Your task to perform on an android device: Go to Amazon Image 0: 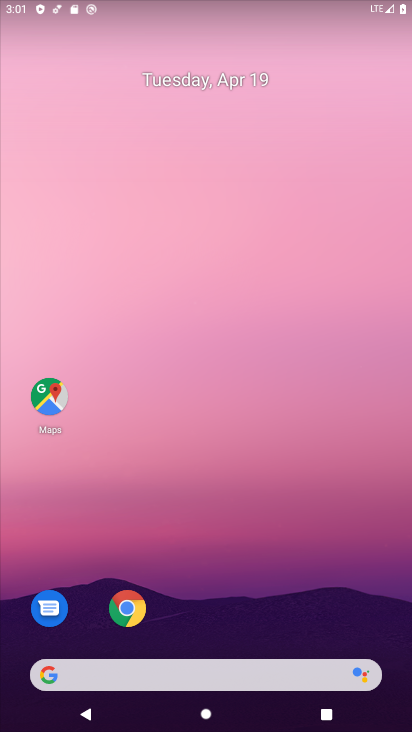
Step 0: drag from (259, 580) to (366, 80)
Your task to perform on an android device: Go to Amazon Image 1: 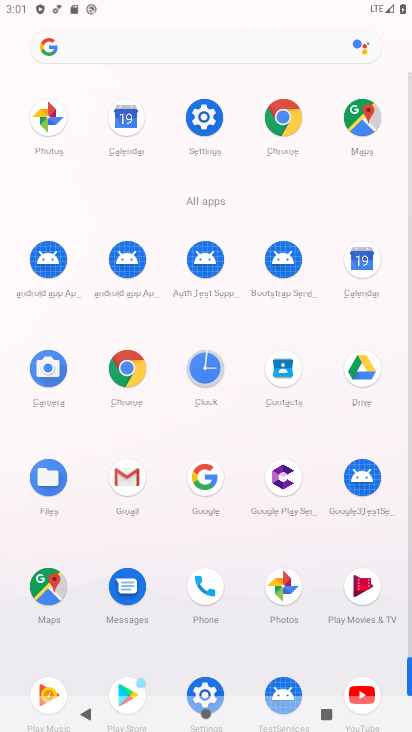
Step 1: drag from (388, 523) to (411, 364)
Your task to perform on an android device: Go to Amazon Image 2: 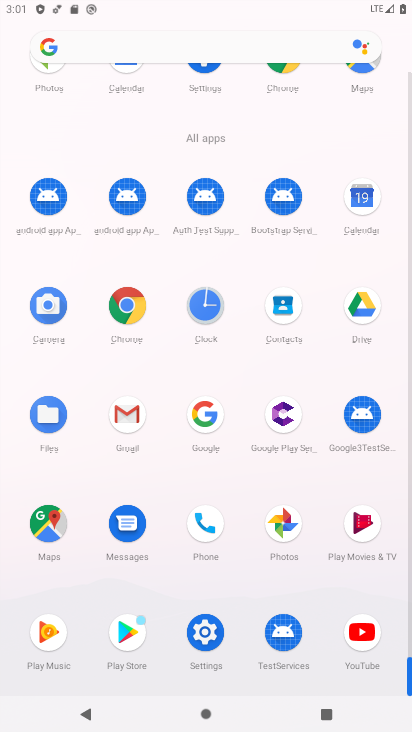
Step 2: drag from (409, 580) to (408, 352)
Your task to perform on an android device: Go to Amazon Image 3: 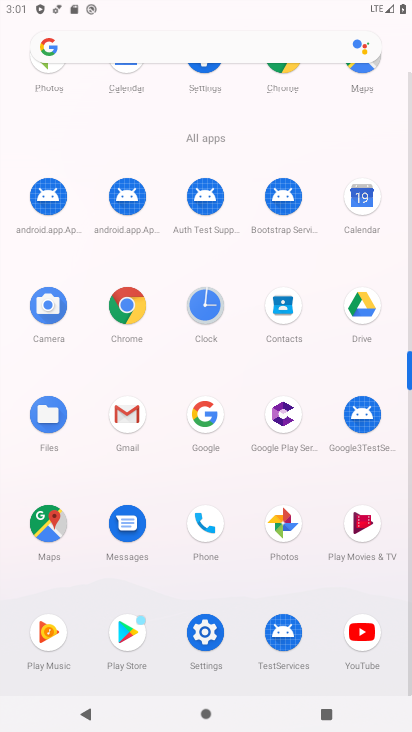
Step 3: drag from (400, 644) to (408, 399)
Your task to perform on an android device: Go to Amazon Image 4: 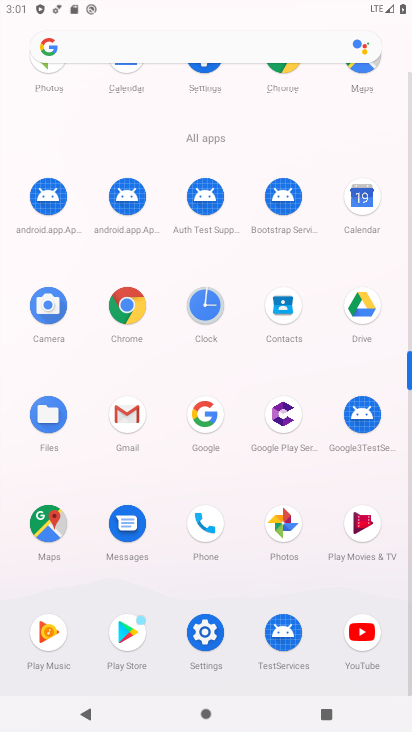
Step 4: click (119, 292)
Your task to perform on an android device: Go to Amazon Image 5: 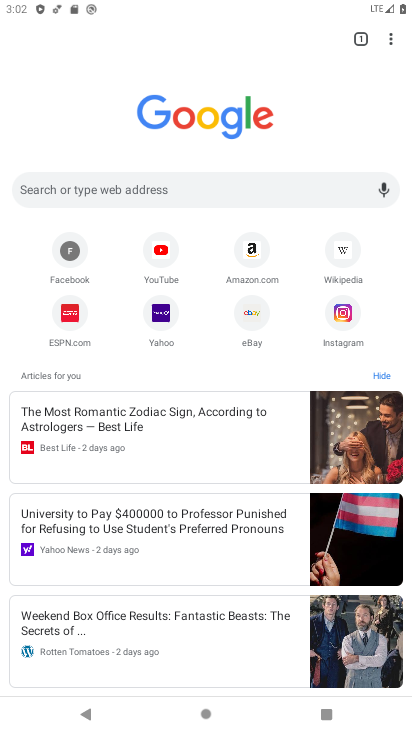
Step 5: click (246, 252)
Your task to perform on an android device: Go to Amazon Image 6: 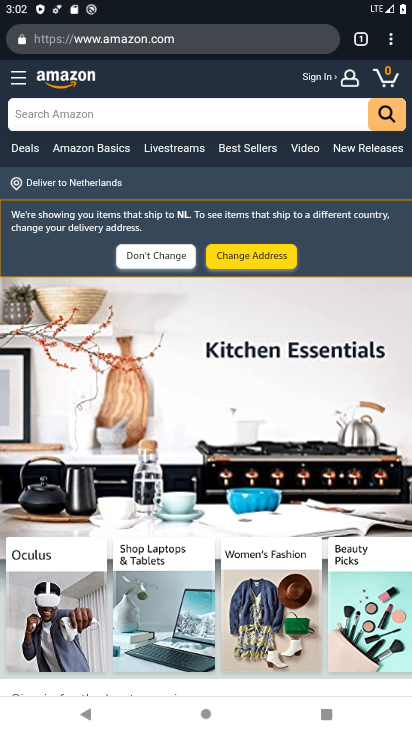
Step 6: task complete